Your task to perform on an android device: turn off javascript in the chrome app Image 0: 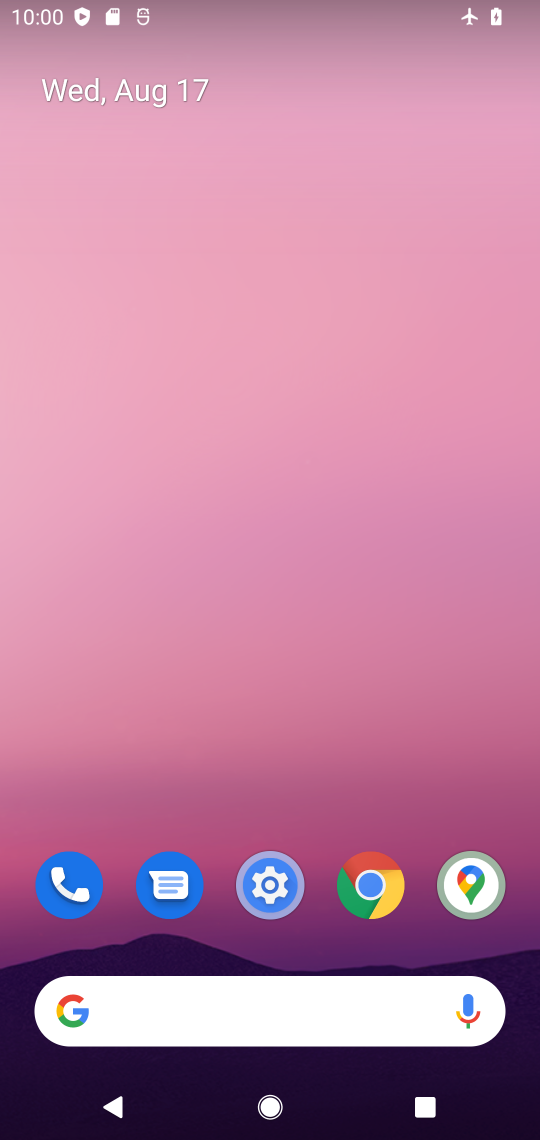
Step 0: click (369, 886)
Your task to perform on an android device: turn off javascript in the chrome app Image 1: 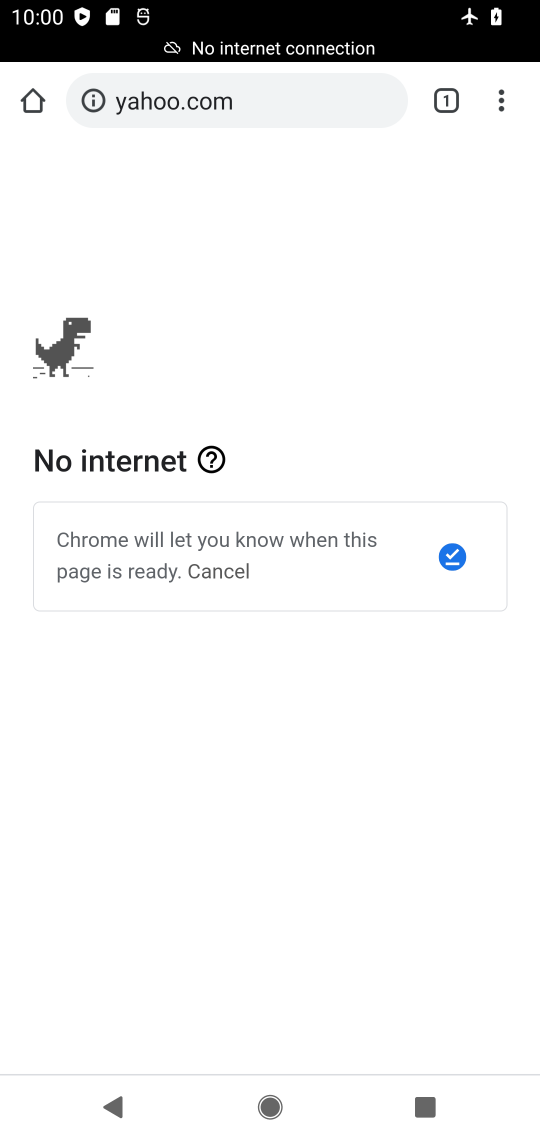
Step 1: click (492, 105)
Your task to perform on an android device: turn off javascript in the chrome app Image 2: 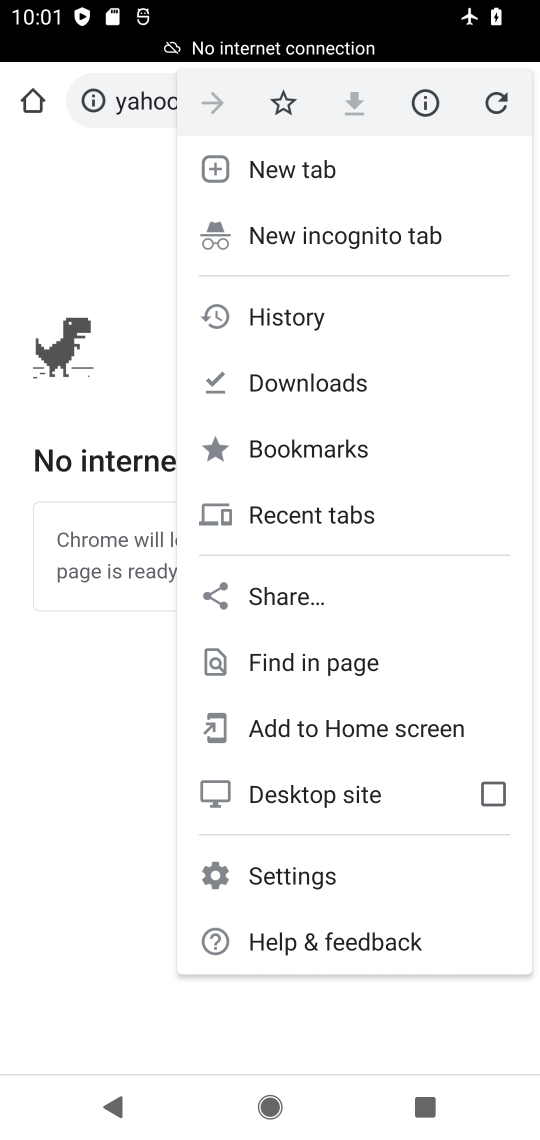
Step 2: click (299, 876)
Your task to perform on an android device: turn off javascript in the chrome app Image 3: 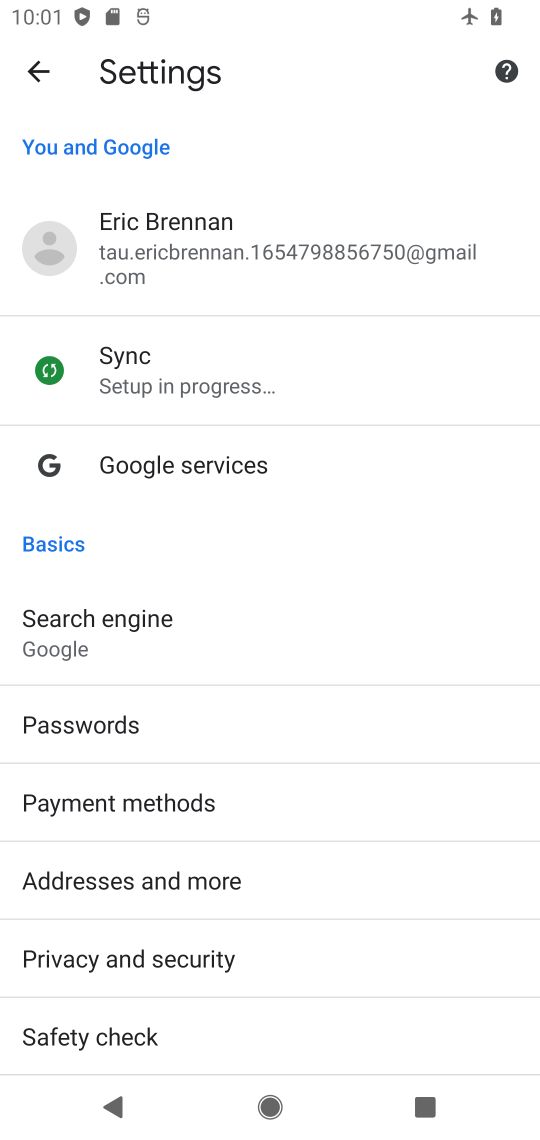
Step 3: drag from (295, 942) to (314, 261)
Your task to perform on an android device: turn off javascript in the chrome app Image 4: 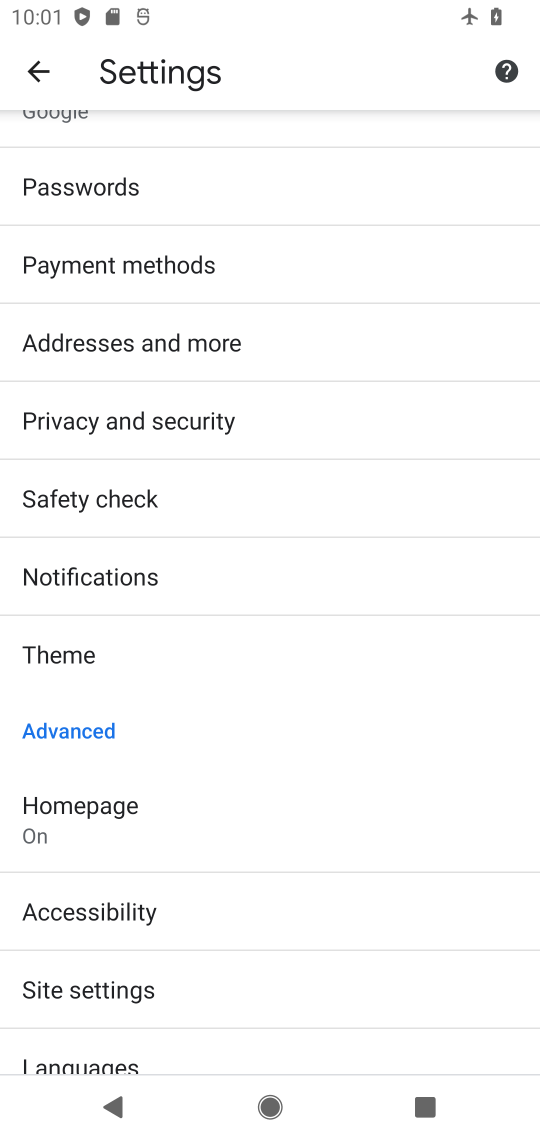
Step 4: drag from (112, 908) to (186, 589)
Your task to perform on an android device: turn off javascript in the chrome app Image 5: 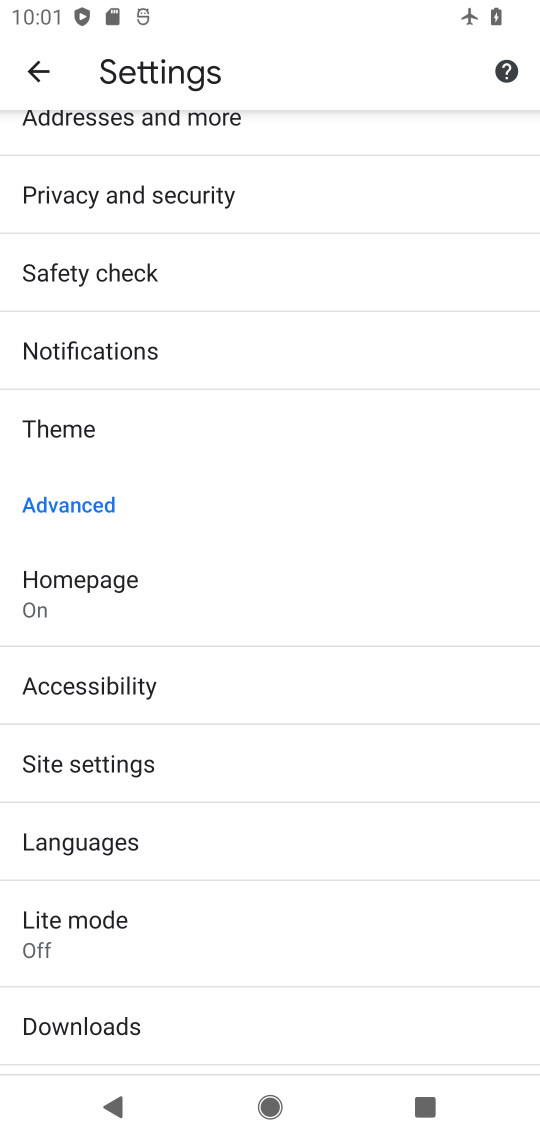
Step 5: click (86, 757)
Your task to perform on an android device: turn off javascript in the chrome app Image 6: 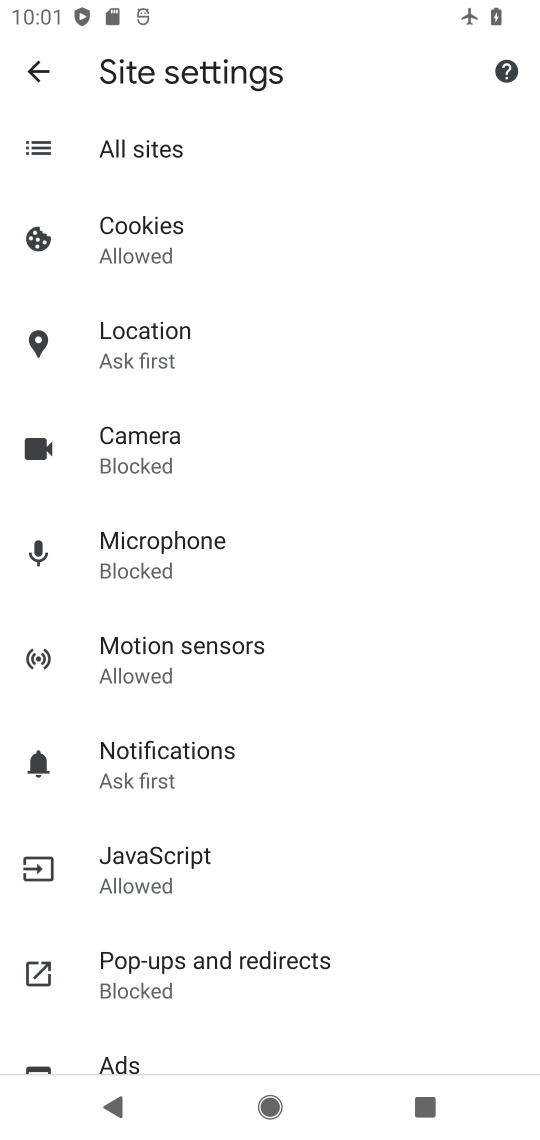
Step 6: click (162, 867)
Your task to perform on an android device: turn off javascript in the chrome app Image 7: 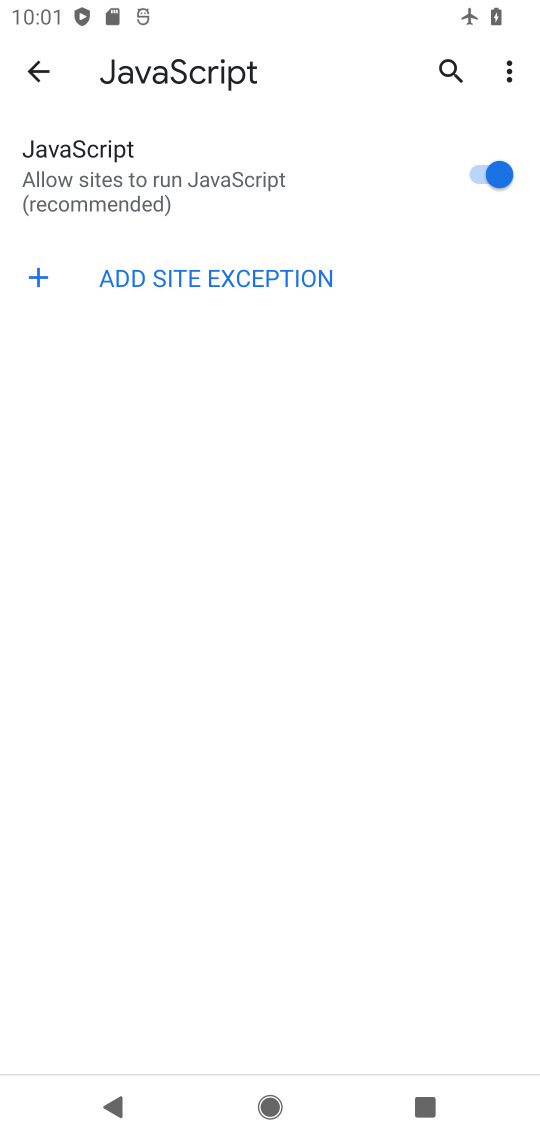
Step 7: click (471, 180)
Your task to perform on an android device: turn off javascript in the chrome app Image 8: 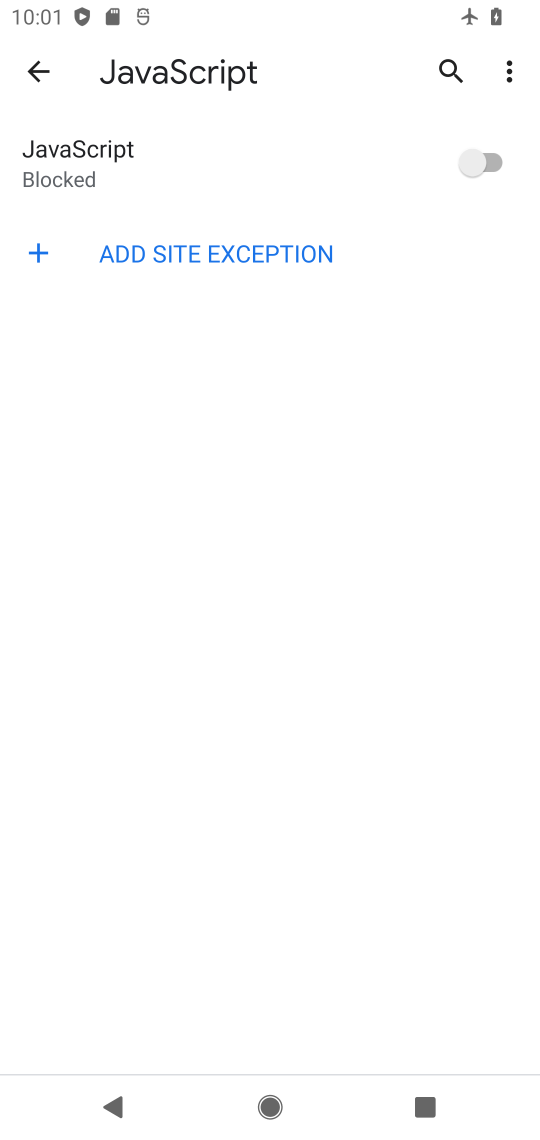
Step 8: task complete